Your task to perform on an android device: Open Android settings Image 0: 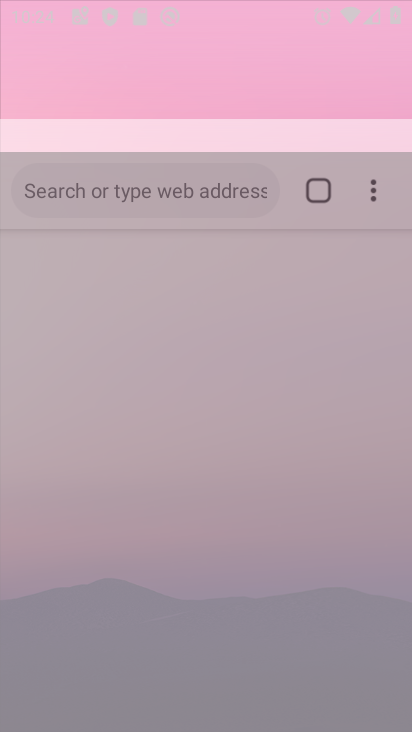
Step 0: click (293, 125)
Your task to perform on an android device: Open Android settings Image 1: 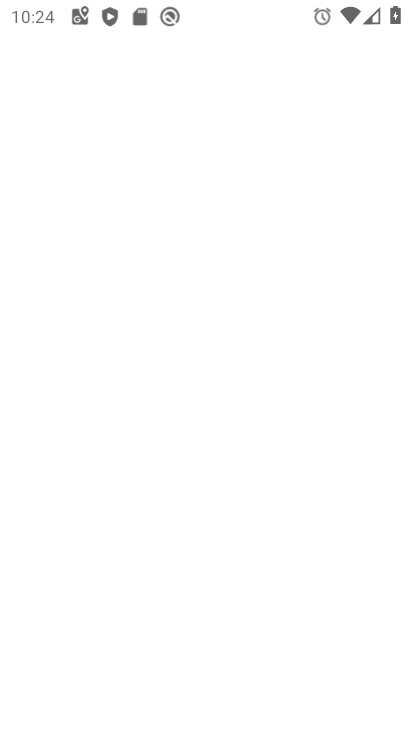
Step 1: drag from (357, 588) to (383, 452)
Your task to perform on an android device: Open Android settings Image 2: 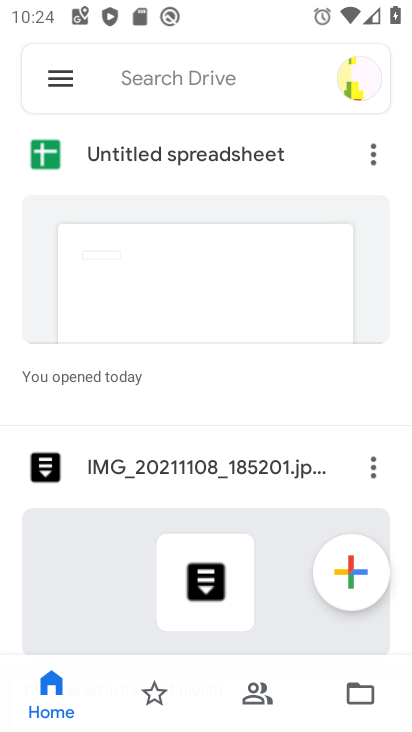
Step 2: press home button
Your task to perform on an android device: Open Android settings Image 3: 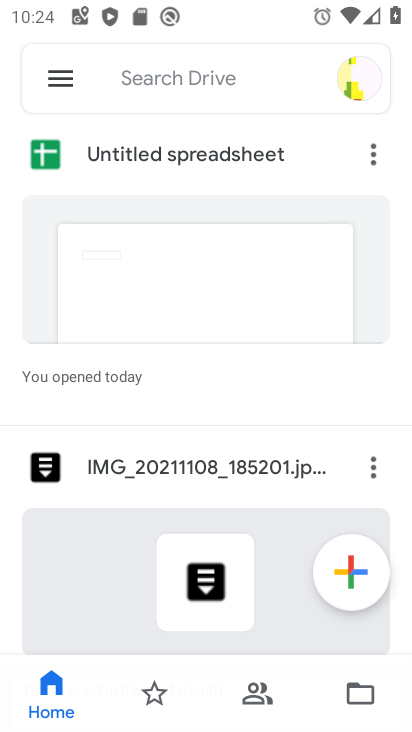
Step 3: click (383, 452)
Your task to perform on an android device: Open Android settings Image 4: 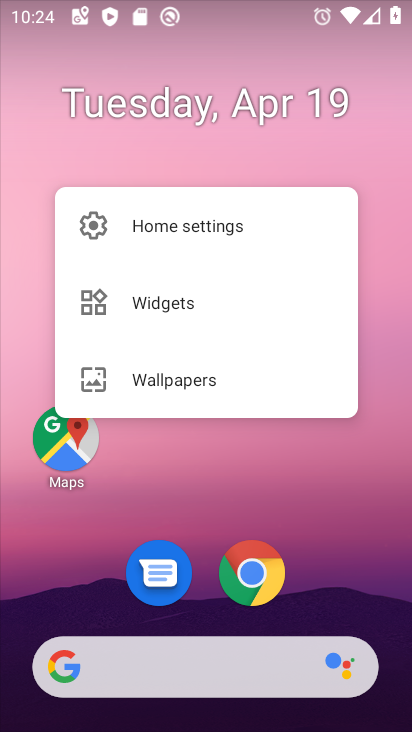
Step 4: press home button
Your task to perform on an android device: Open Android settings Image 5: 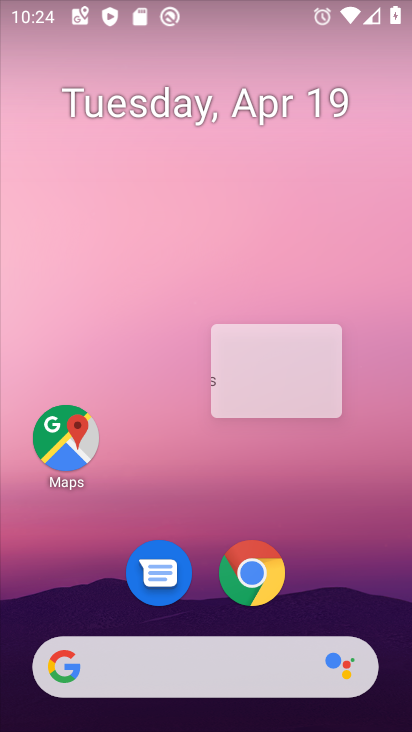
Step 5: drag from (383, 452) to (391, 556)
Your task to perform on an android device: Open Android settings Image 6: 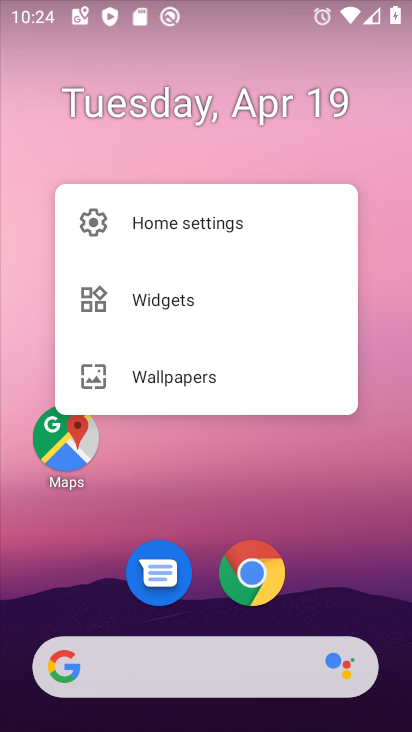
Step 6: drag from (294, 585) to (297, 128)
Your task to perform on an android device: Open Android settings Image 7: 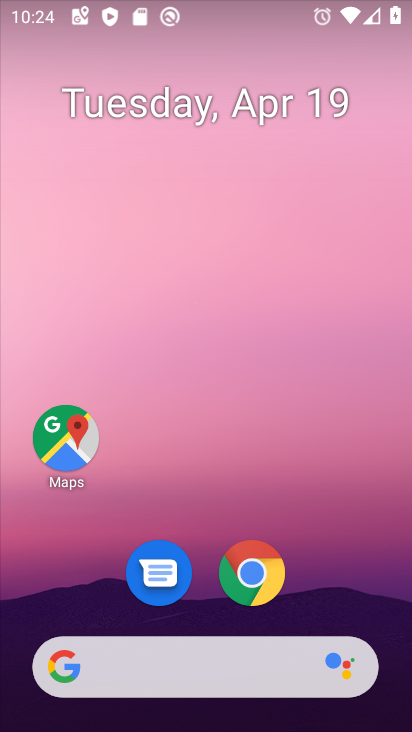
Step 7: drag from (333, 566) to (298, 159)
Your task to perform on an android device: Open Android settings Image 8: 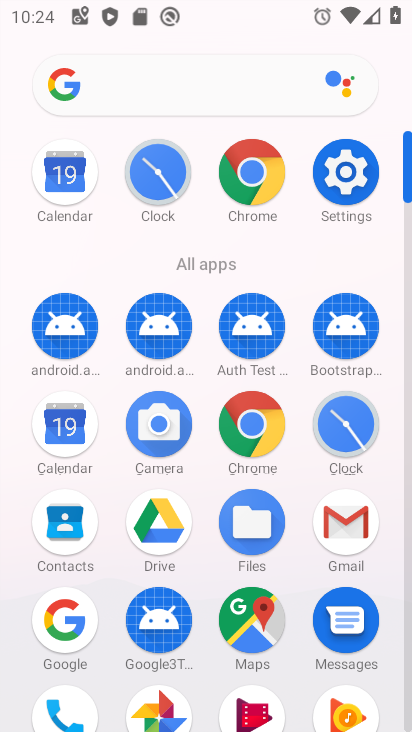
Step 8: click (360, 172)
Your task to perform on an android device: Open Android settings Image 9: 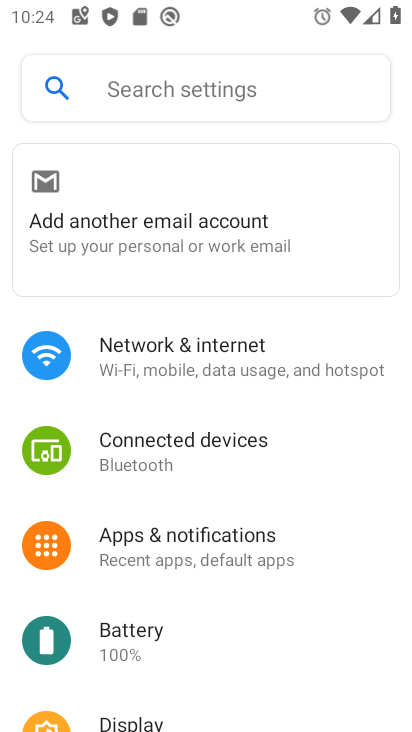
Step 9: drag from (223, 645) to (231, 183)
Your task to perform on an android device: Open Android settings Image 10: 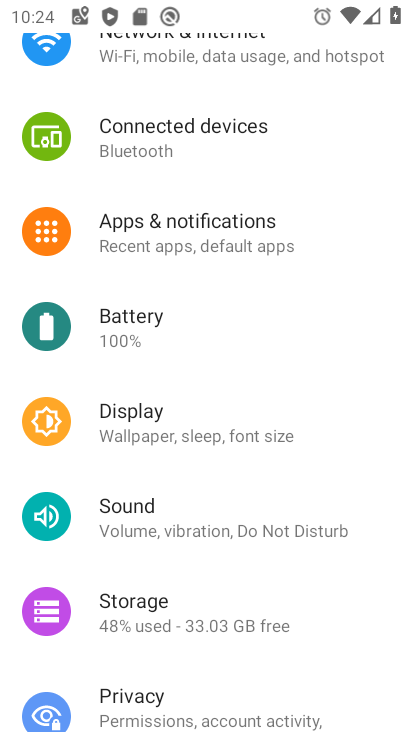
Step 10: drag from (190, 648) to (203, 267)
Your task to perform on an android device: Open Android settings Image 11: 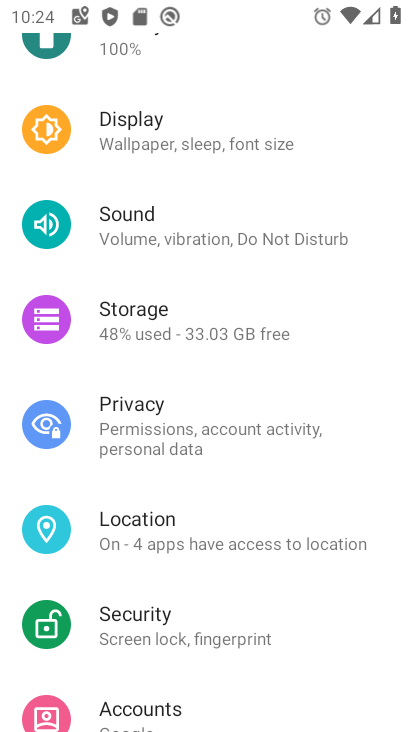
Step 11: drag from (184, 646) to (206, 251)
Your task to perform on an android device: Open Android settings Image 12: 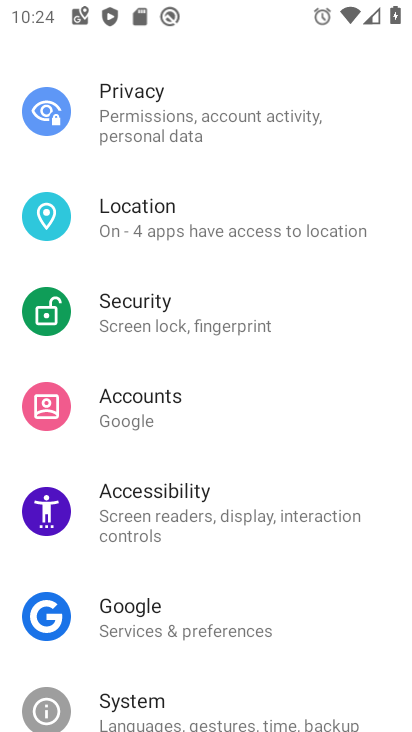
Step 12: drag from (198, 685) to (220, 339)
Your task to perform on an android device: Open Android settings Image 13: 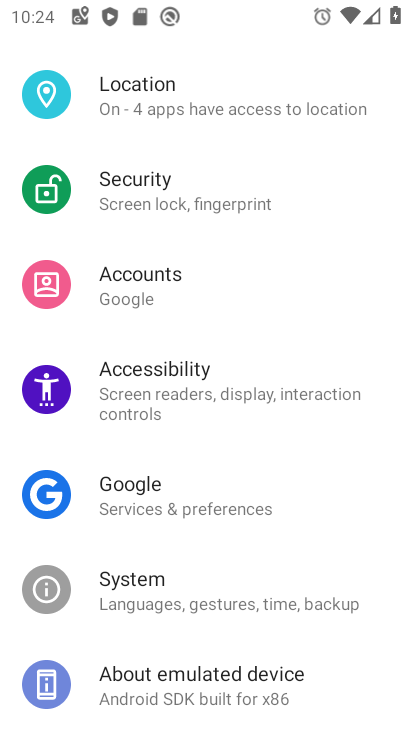
Step 13: click (160, 684)
Your task to perform on an android device: Open Android settings Image 14: 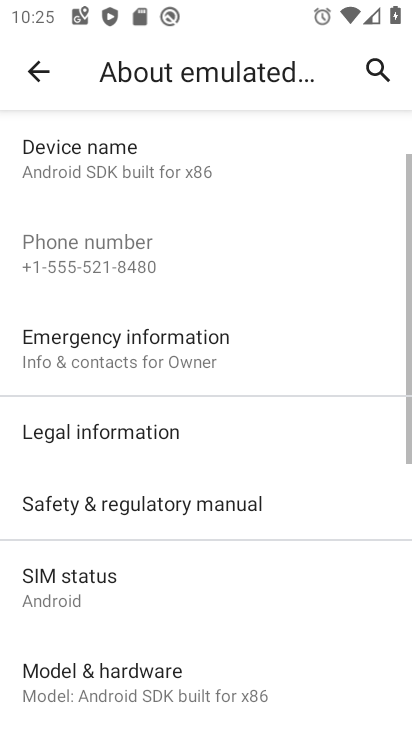
Step 14: drag from (176, 607) to (185, 298)
Your task to perform on an android device: Open Android settings Image 15: 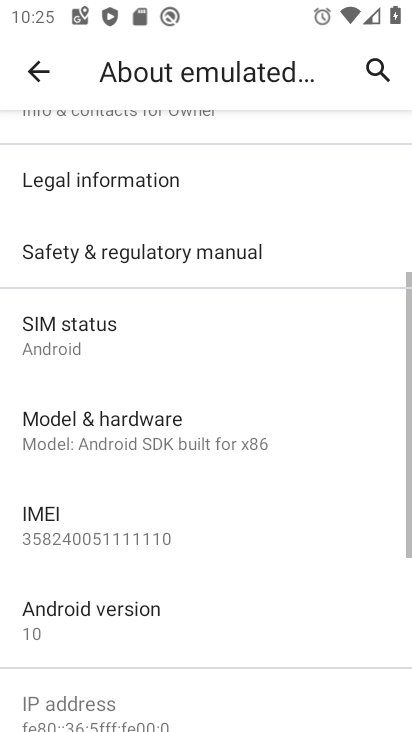
Step 15: drag from (132, 632) to (116, 377)
Your task to perform on an android device: Open Android settings Image 16: 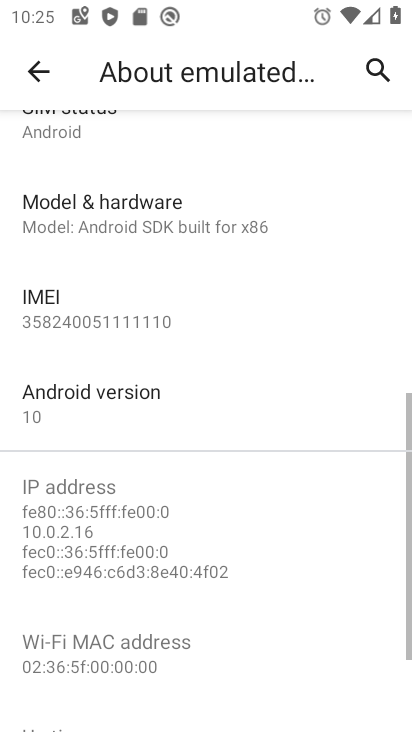
Step 16: click (119, 386)
Your task to perform on an android device: Open Android settings Image 17: 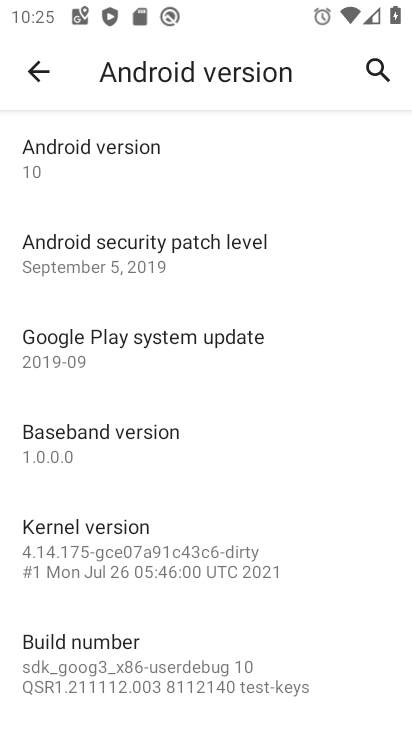
Step 17: task complete